Your task to perform on an android device: Show me popular games on the Play Store Image 0: 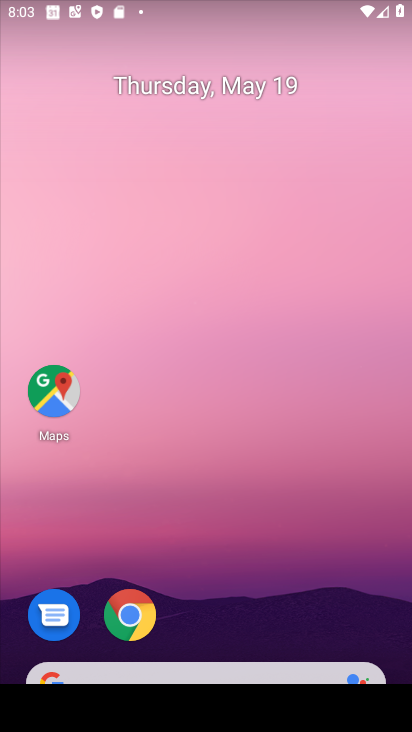
Step 0: drag from (239, 569) to (306, 96)
Your task to perform on an android device: Show me popular games on the Play Store Image 1: 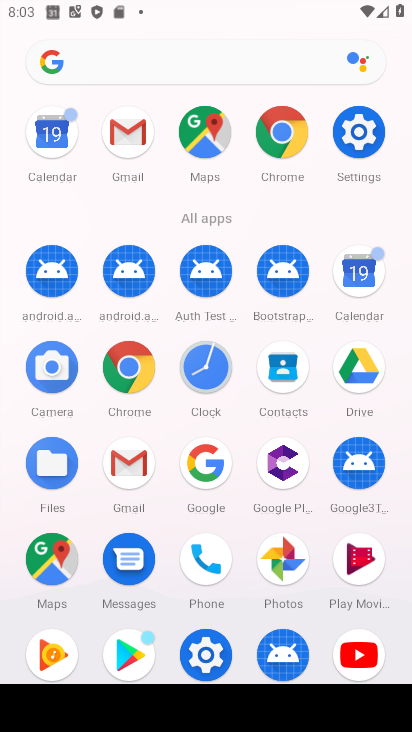
Step 1: drag from (254, 509) to (323, 144)
Your task to perform on an android device: Show me popular games on the Play Store Image 2: 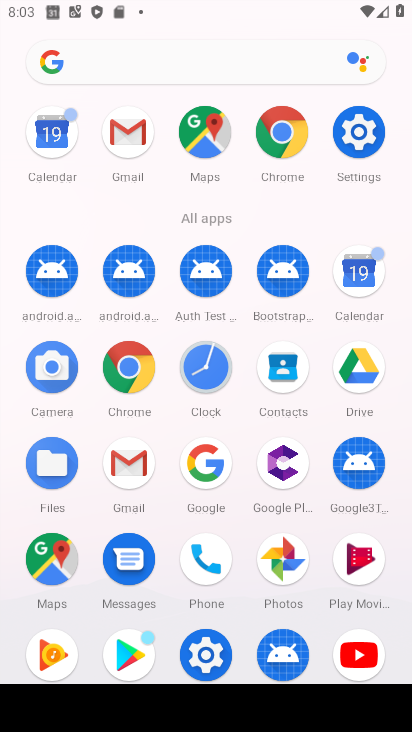
Step 2: click (133, 667)
Your task to perform on an android device: Show me popular games on the Play Store Image 3: 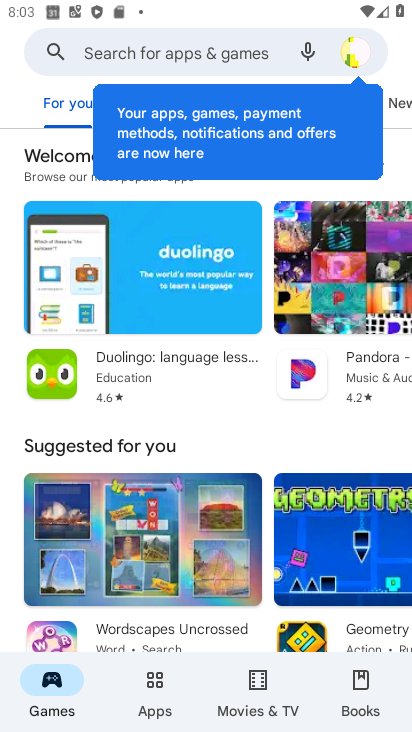
Step 3: task complete